Your task to perform on an android device: turn off smart reply in the gmail app Image 0: 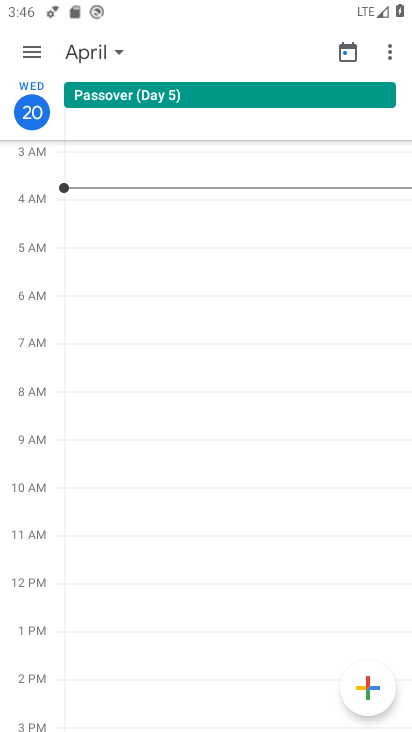
Step 0: press home button
Your task to perform on an android device: turn off smart reply in the gmail app Image 1: 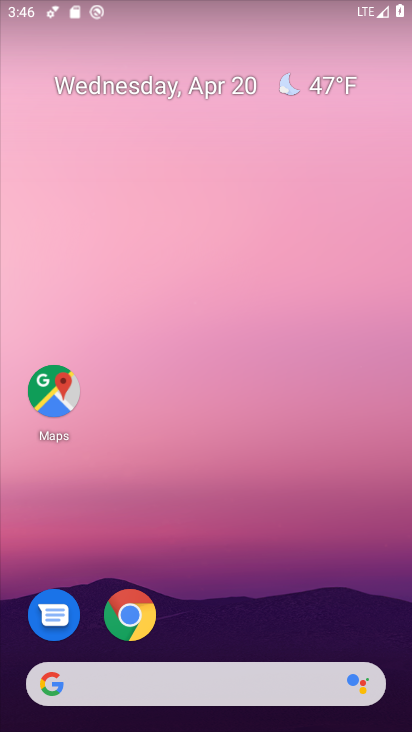
Step 1: drag from (230, 553) to (233, 169)
Your task to perform on an android device: turn off smart reply in the gmail app Image 2: 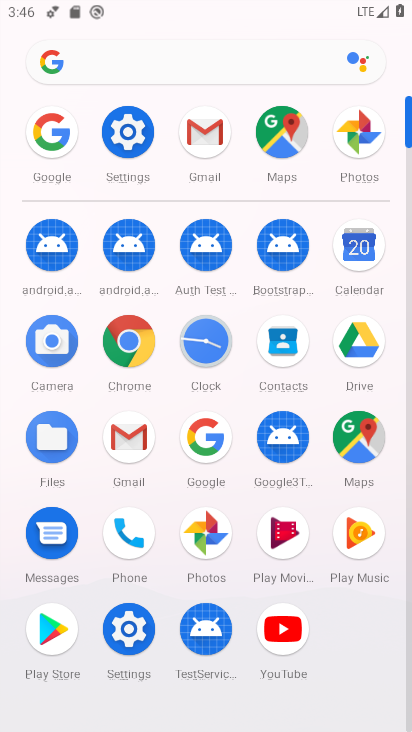
Step 2: click (190, 129)
Your task to perform on an android device: turn off smart reply in the gmail app Image 3: 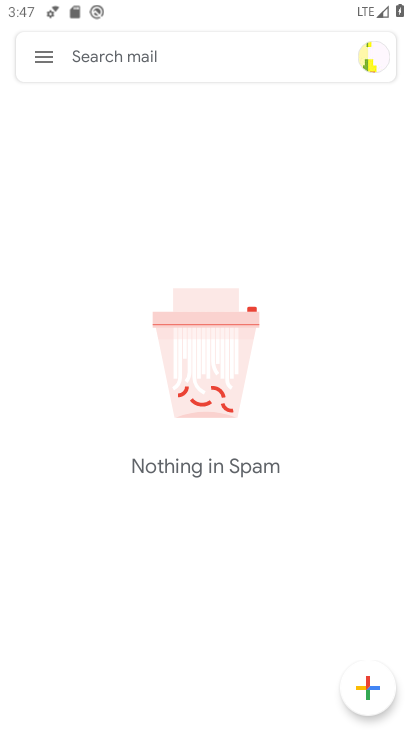
Step 3: click (48, 59)
Your task to perform on an android device: turn off smart reply in the gmail app Image 4: 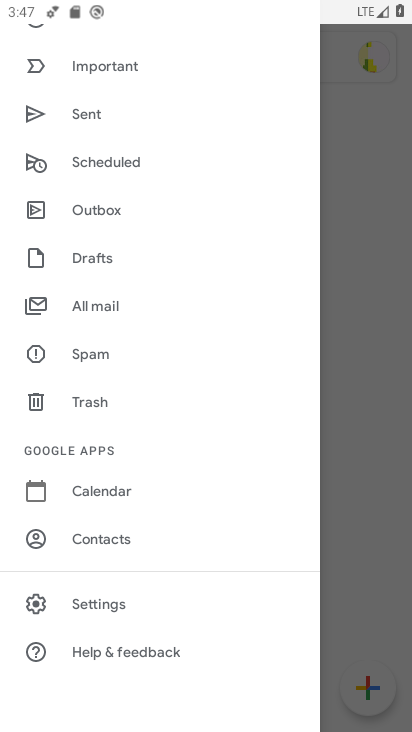
Step 4: click (93, 603)
Your task to perform on an android device: turn off smart reply in the gmail app Image 5: 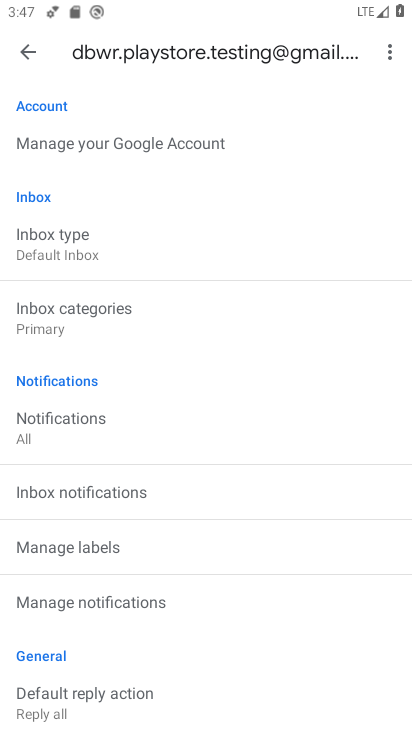
Step 5: drag from (181, 681) to (188, 267)
Your task to perform on an android device: turn off smart reply in the gmail app Image 6: 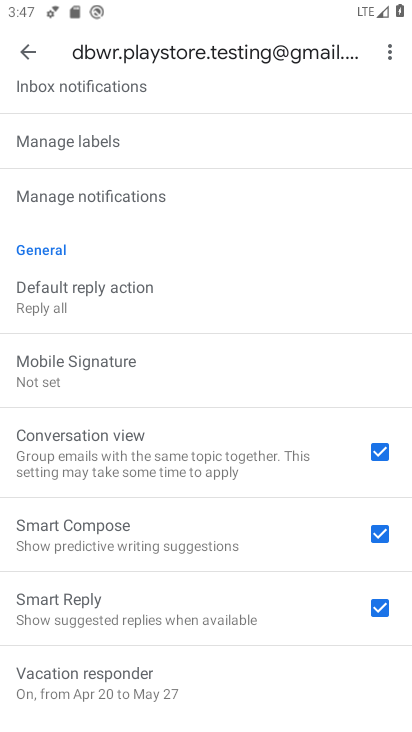
Step 6: click (376, 607)
Your task to perform on an android device: turn off smart reply in the gmail app Image 7: 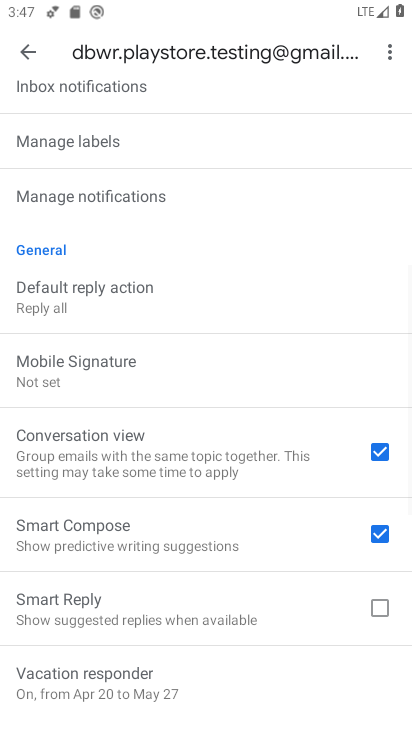
Step 7: task complete